Your task to perform on an android device: Go to Yahoo.com Image 0: 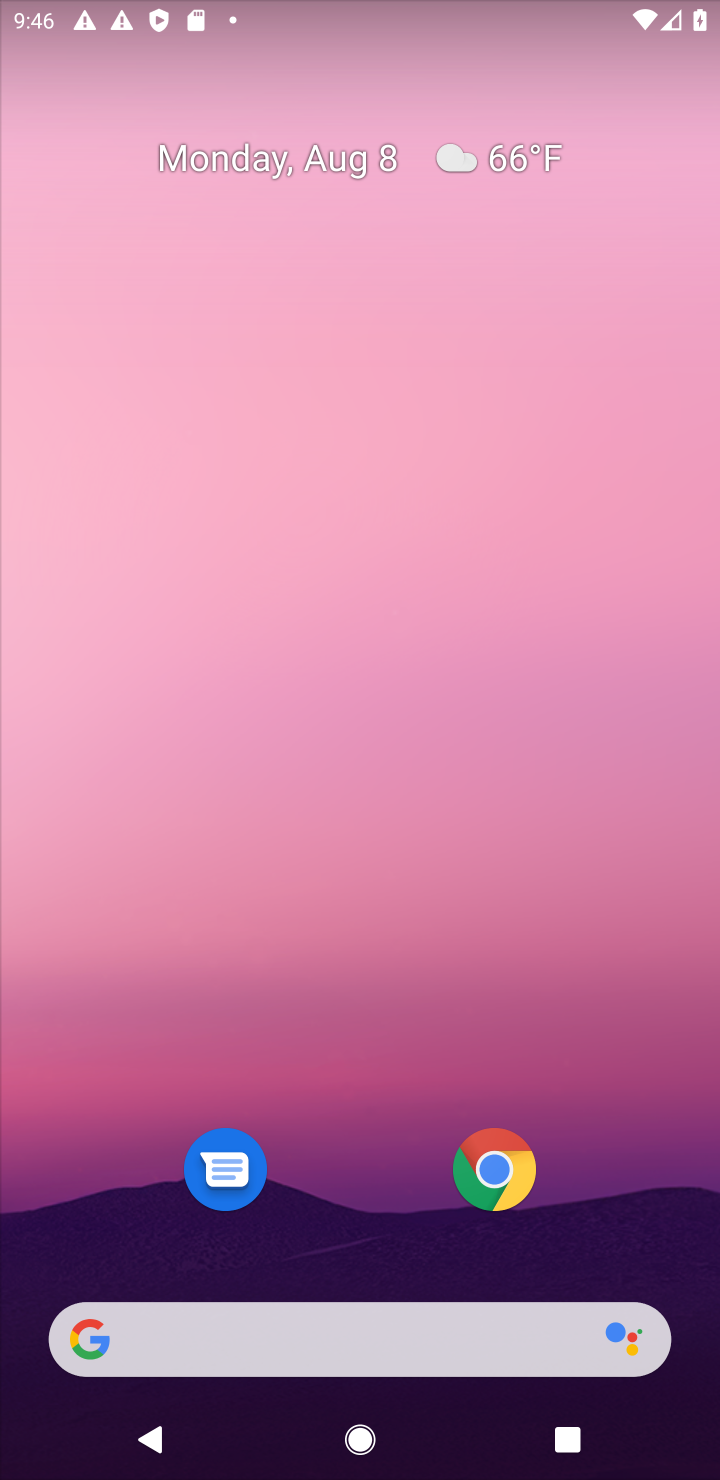
Step 0: click (498, 1157)
Your task to perform on an android device: Go to Yahoo.com Image 1: 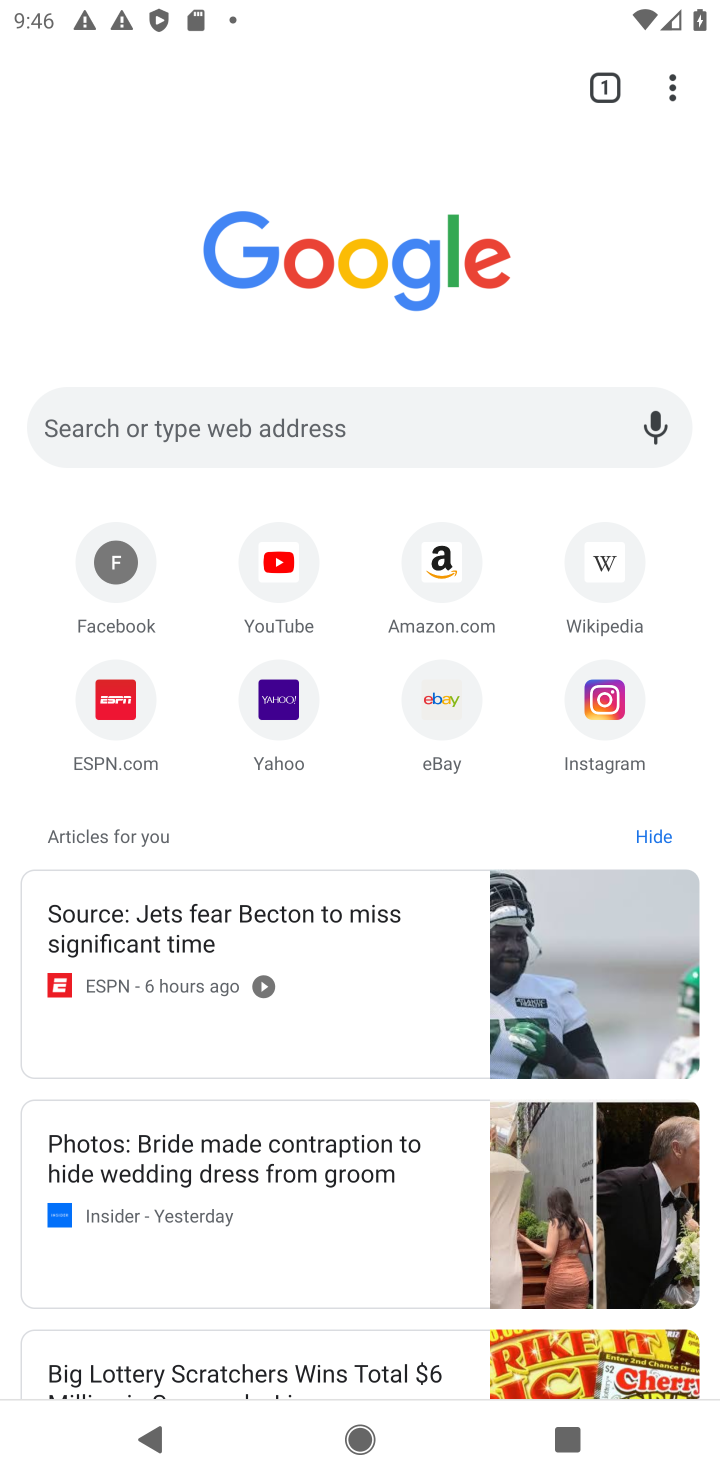
Step 1: click (286, 726)
Your task to perform on an android device: Go to Yahoo.com Image 2: 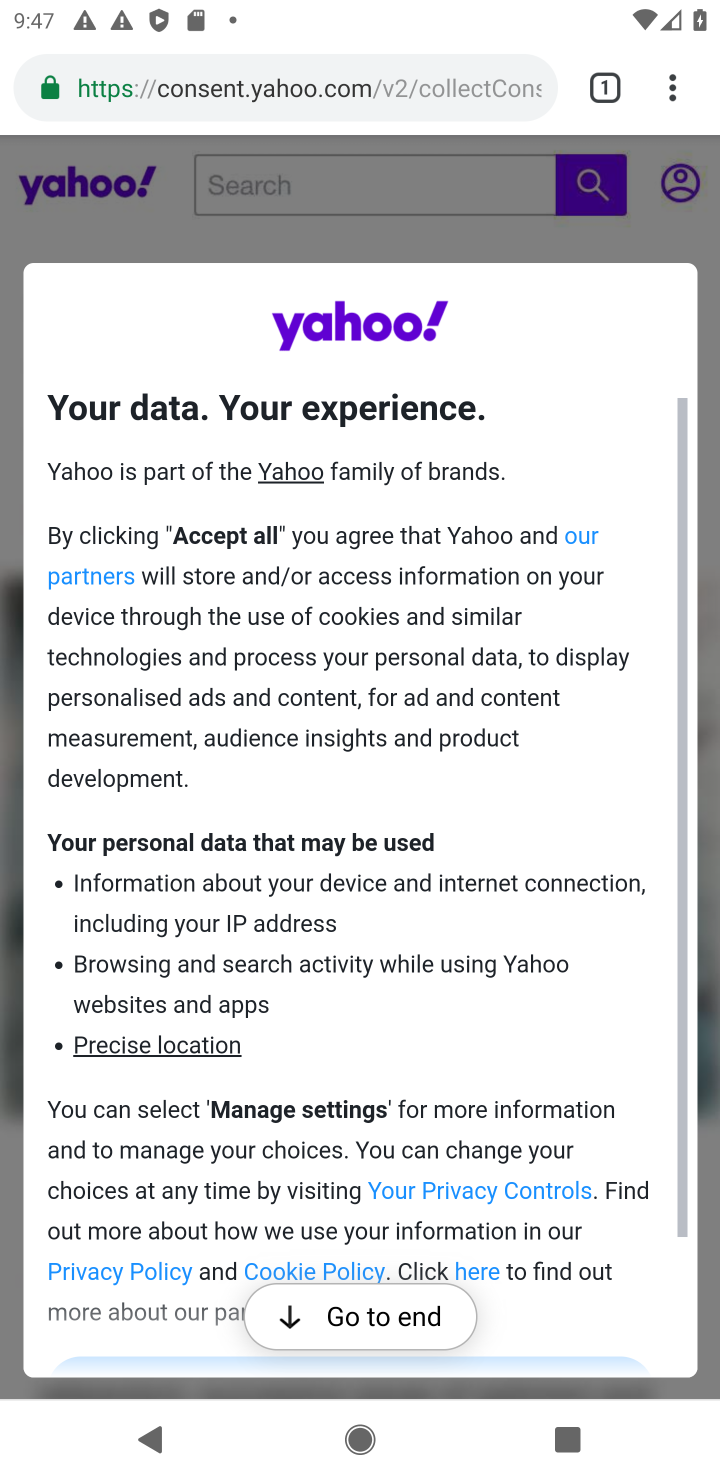
Step 2: task complete